Your task to perform on an android device: Is it going to rain today? Image 0: 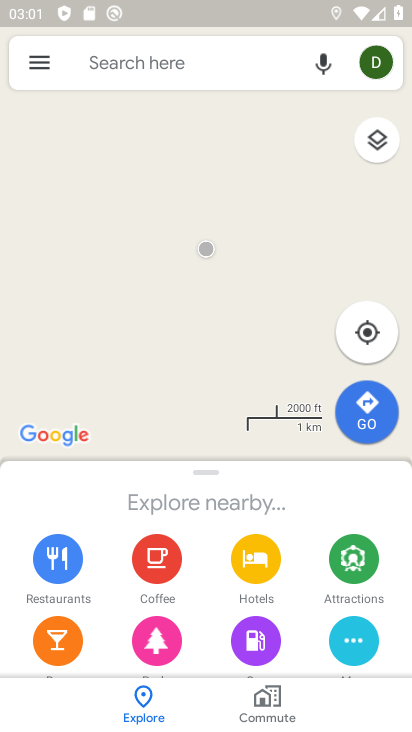
Step 0: press home button
Your task to perform on an android device: Is it going to rain today? Image 1: 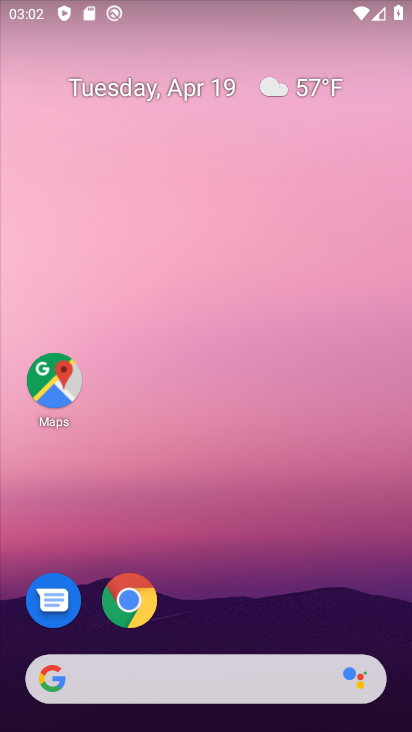
Step 1: drag from (369, 593) to (200, 123)
Your task to perform on an android device: Is it going to rain today? Image 2: 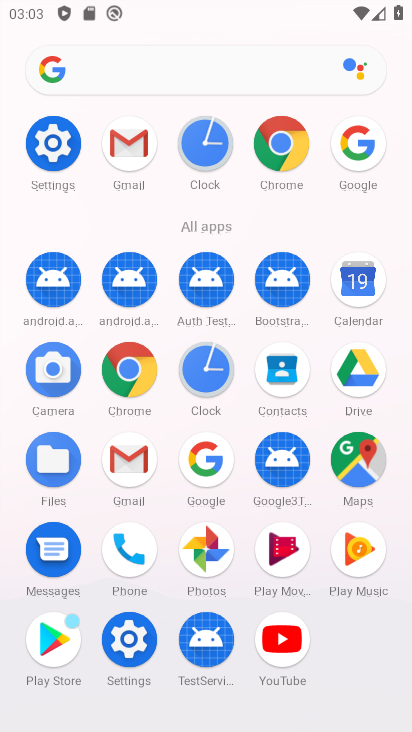
Step 2: click (294, 155)
Your task to perform on an android device: Is it going to rain today? Image 3: 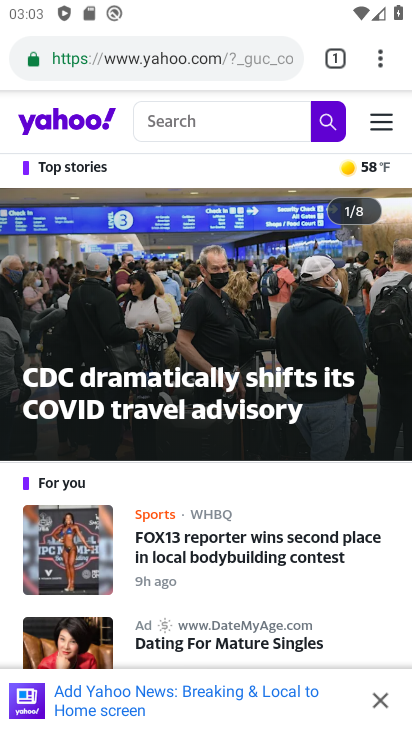
Step 3: click (169, 71)
Your task to perform on an android device: Is it going to rain today? Image 4: 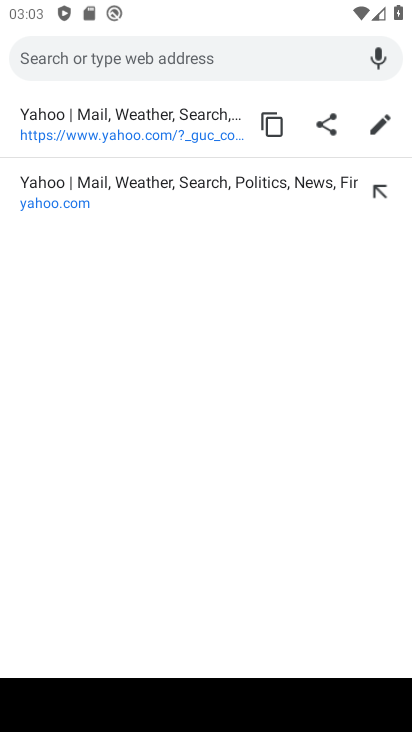
Step 4: type "Is it going to rain today?"
Your task to perform on an android device: Is it going to rain today? Image 5: 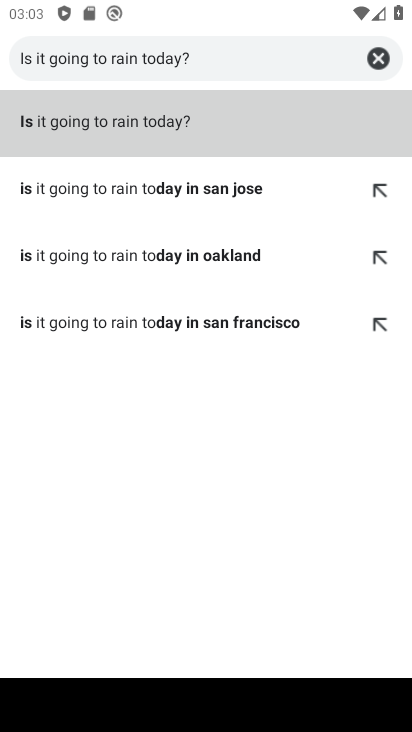
Step 5: click (203, 117)
Your task to perform on an android device: Is it going to rain today? Image 6: 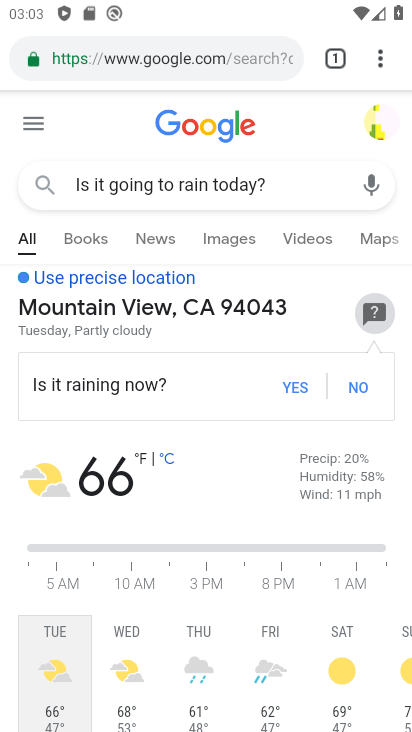
Step 6: task complete